Your task to perform on an android device: star an email in the gmail app Image 0: 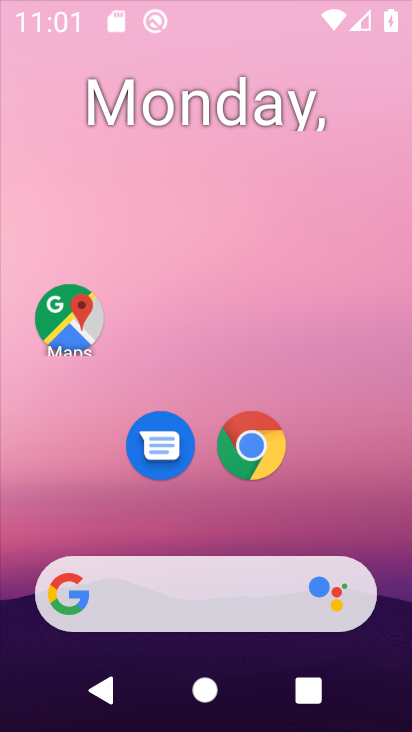
Step 0: click (250, 265)
Your task to perform on an android device: star an email in the gmail app Image 1: 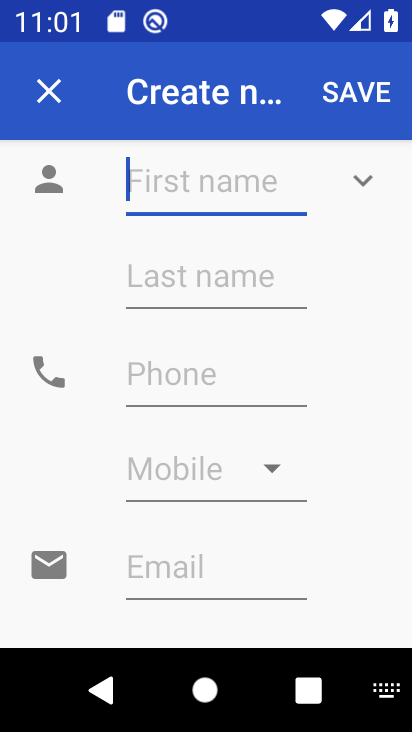
Step 1: press home button
Your task to perform on an android device: star an email in the gmail app Image 2: 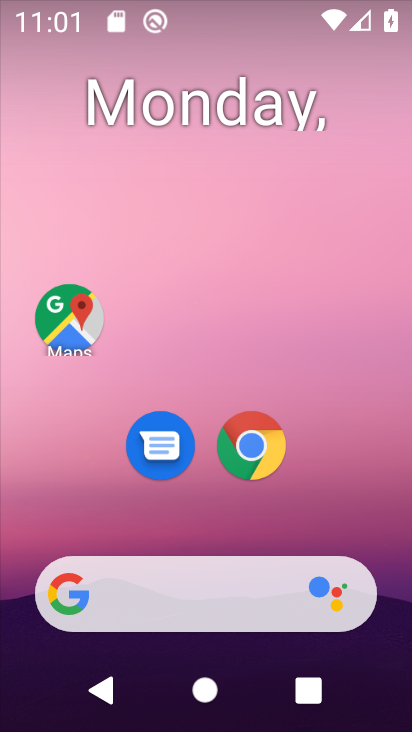
Step 2: drag from (202, 550) to (284, 314)
Your task to perform on an android device: star an email in the gmail app Image 3: 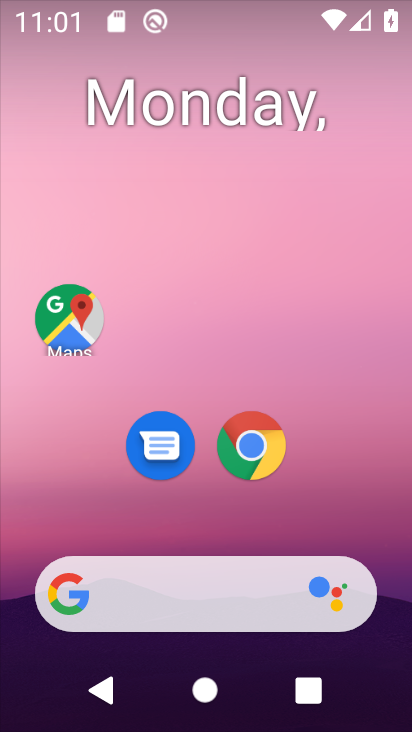
Step 3: drag from (273, 443) to (319, 186)
Your task to perform on an android device: star an email in the gmail app Image 4: 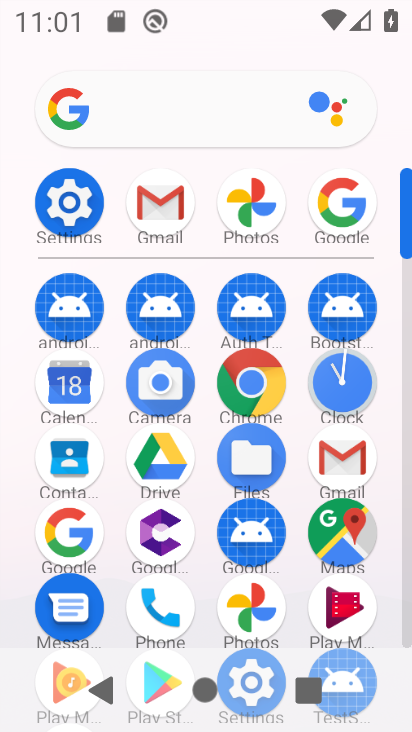
Step 4: click (324, 481)
Your task to perform on an android device: star an email in the gmail app Image 5: 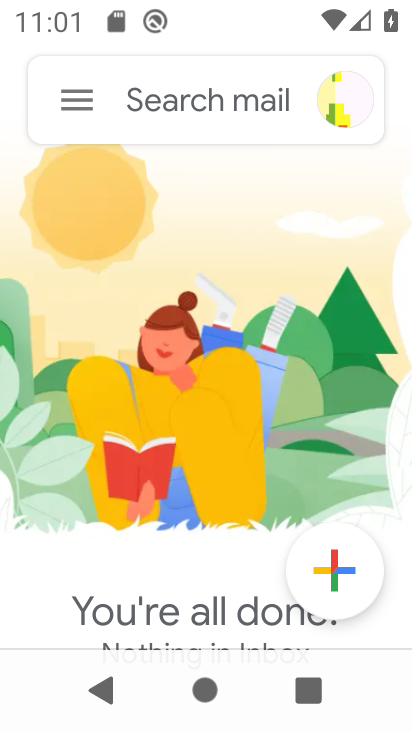
Step 5: click (89, 93)
Your task to perform on an android device: star an email in the gmail app Image 6: 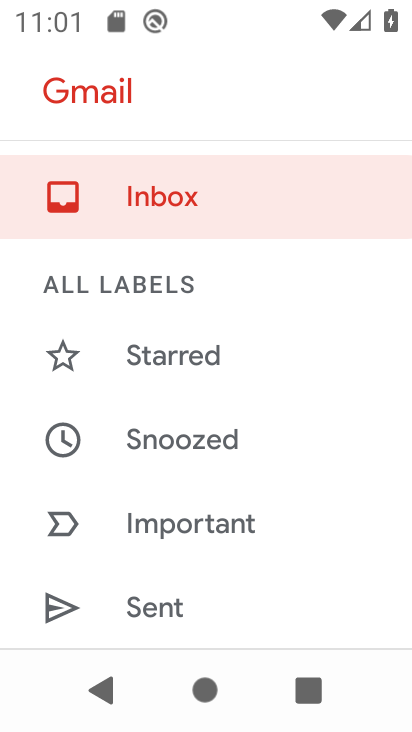
Step 6: click (167, 347)
Your task to perform on an android device: star an email in the gmail app Image 7: 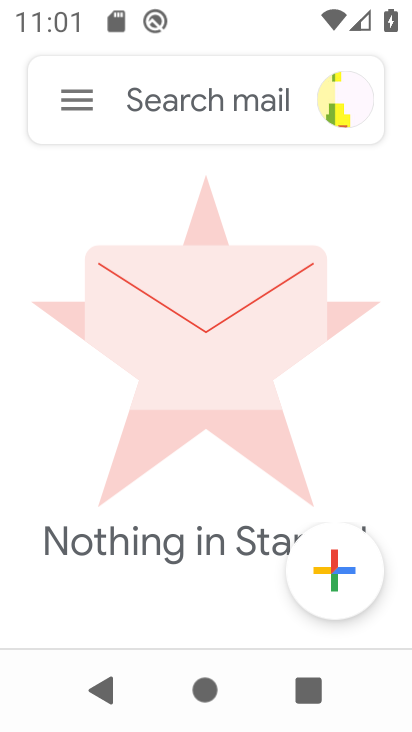
Step 7: task complete